Your task to perform on an android device: manage bookmarks in the chrome app Image 0: 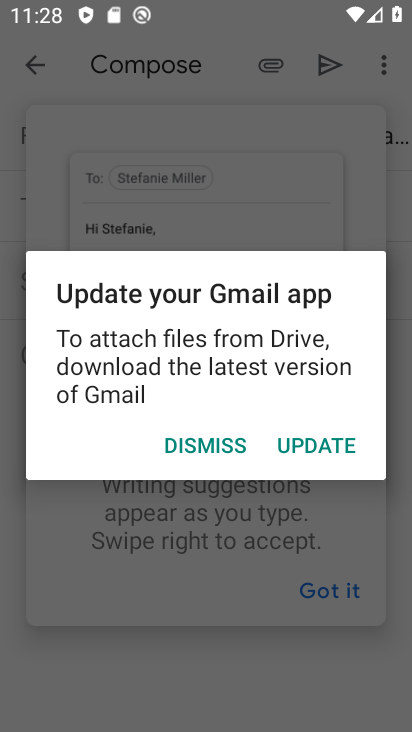
Step 0: press home button
Your task to perform on an android device: manage bookmarks in the chrome app Image 1: 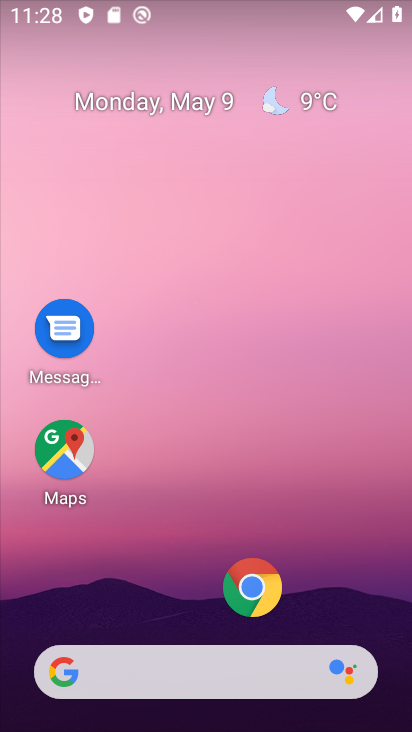
Step 1: click (241, 581)
Your task to perform on an android device: manage bookmarks in the chrome app Image 2: 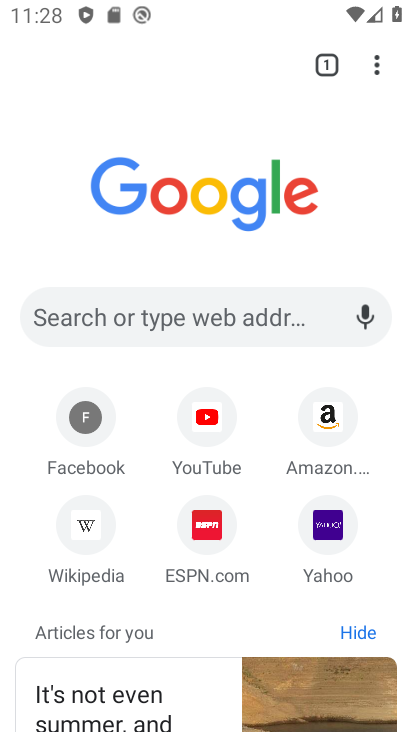
Step 2: click (380, 61)
Your task to perform on an android device: manage bookmarks in the chrome app Image 3: 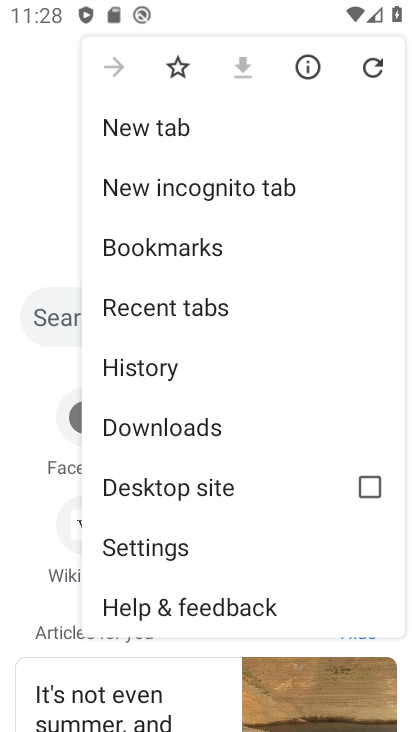
Step 3: click (187, 242)
Your task to perform on an android device: manage bookmarks in the chrome app Image 4: 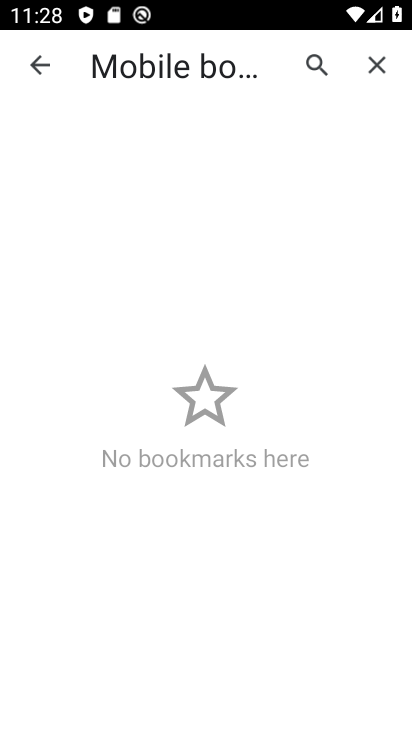
Step 4: task complete